Your task to perform on an android device: What's the weather today? Image 0: 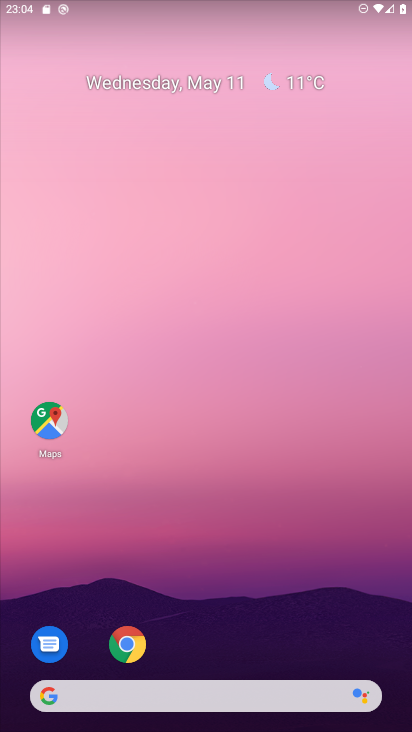
Step 0: click (306, 82)
Your task to perform on an android device: What's the weather today? Image 1: 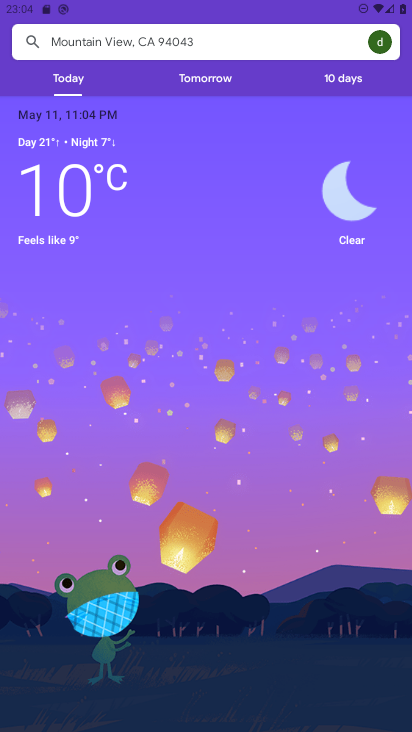
Step 1: task complete